Your task to perform on an android device: See recent photos Image 0: 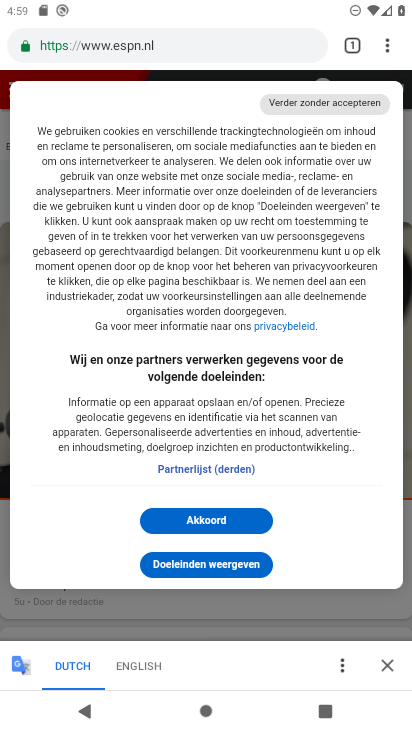
Step 0: click (236, 167)
Your task to perform on an android device: See recent photos Image 1: 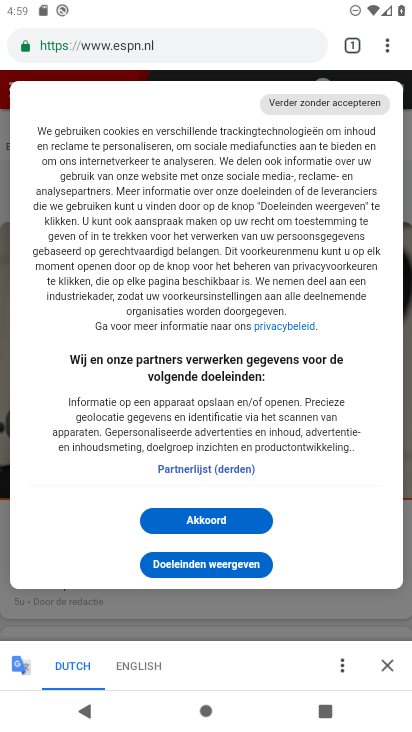
Step 1: press home button
Your task to perform on an android device: See recent photos Image 2: 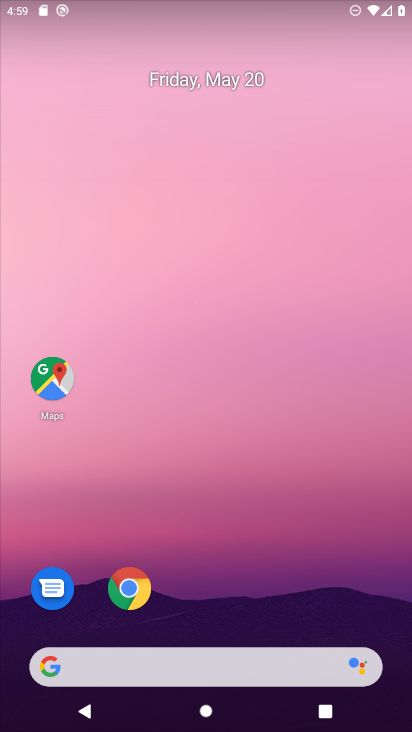
Step 2: drag from (221, 272) to (228, 197)
Your task to perform on an android device: See recent photos Image 3: 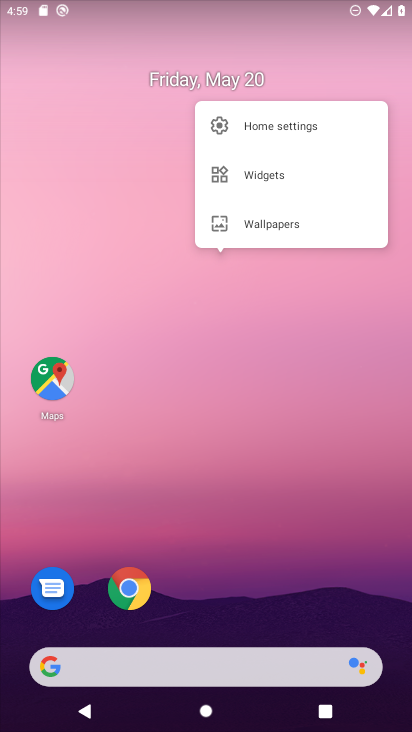
Step 3: click (224, 585)
Your task to perform on an android device: See recent photos Image 4: 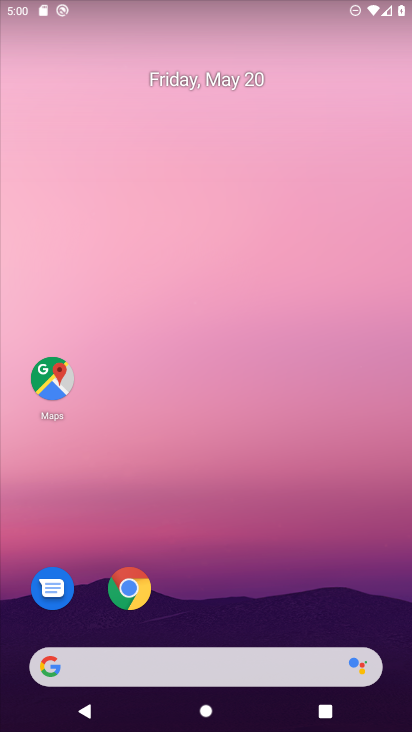
Step 4: drag from (195, 605) to (190, 249)
Your task to perform on an android device: See recent photos Image 5: 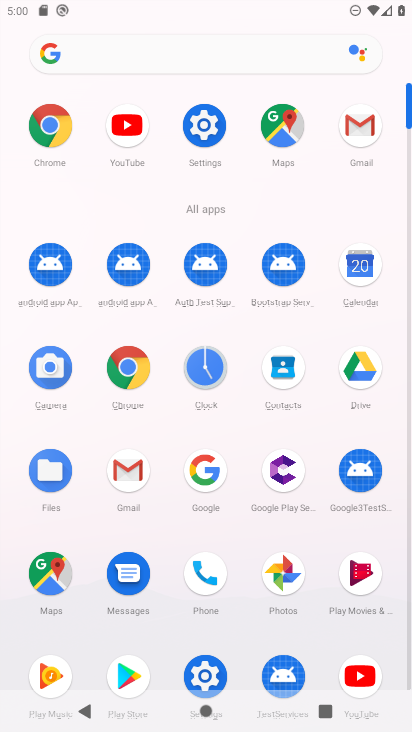
Step 5: click (267, 572)
Your task to perform on an android device: See recent photos Image 6: 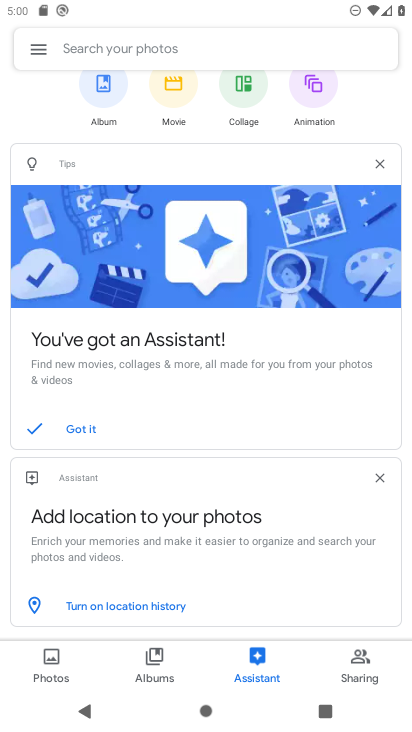
Step 6: press home button
Your task to perform on an android device: See recent photos Image 7: 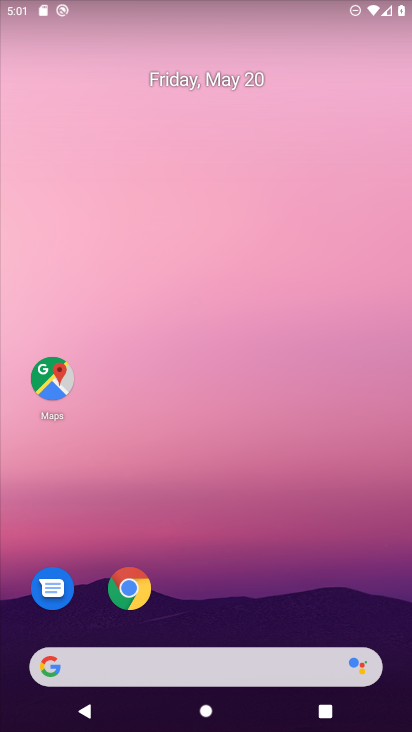
Step 7: drag from (175, 595) to (297, 219)
Your task to perform on an android device: See recent photos Image 8: 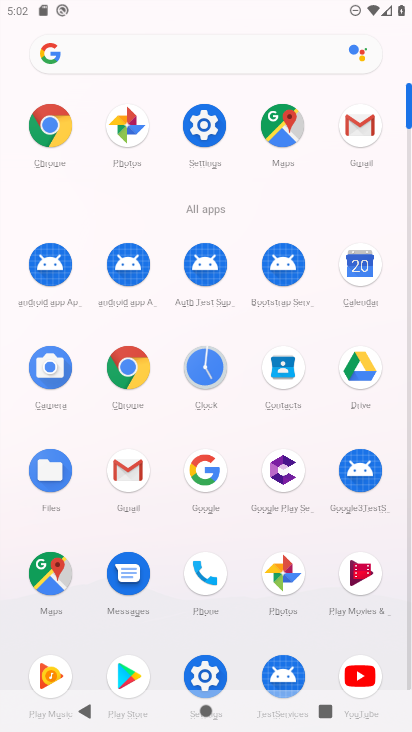
Step 8: click (285, 574)
Your task to perform on an android device: See recent photos Image 9: 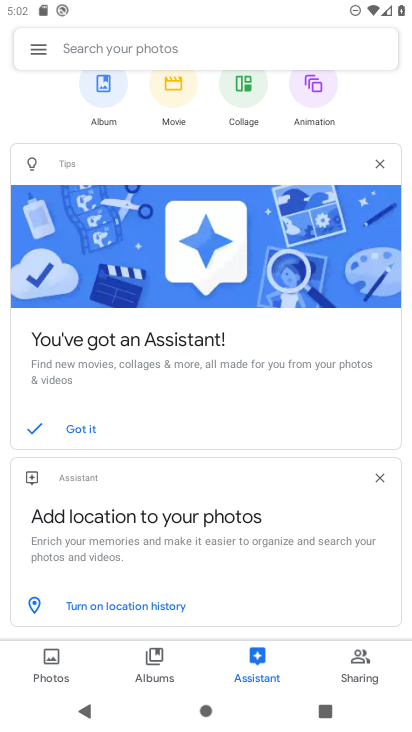
Step 9: task complete